Your task to perform on an android device: Open the phone app and click the voicemail tab. Image 0: 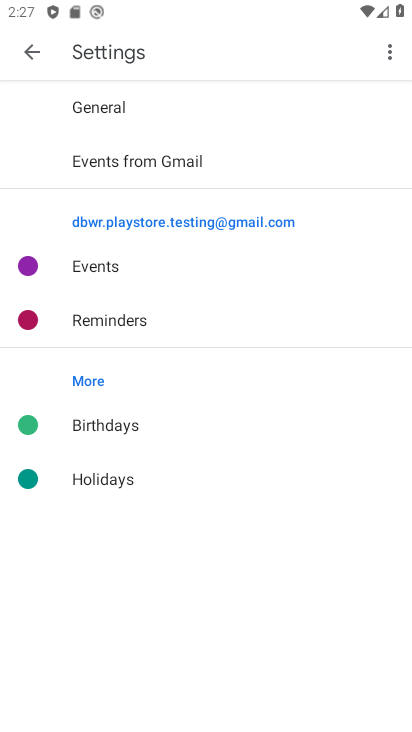
Step 0: press home button
Your task to perform on an android device: Open the phone app and click the voicemail tab. Image 1: 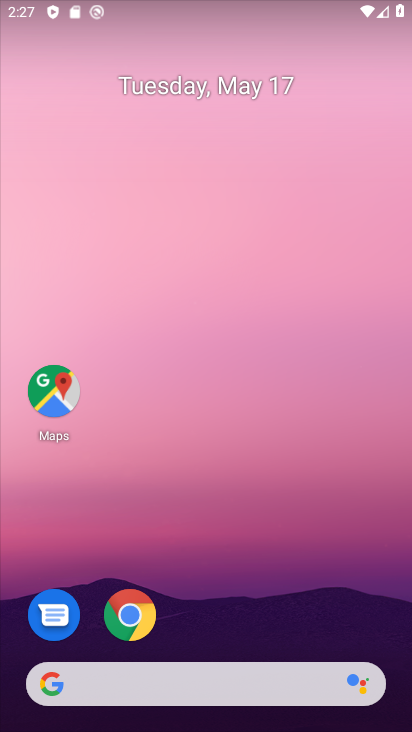
Step 1: drag from (194, 729) to (224, 231)
Your task to perform on an android device: Open the phone app and click the voicemail tab. Image 2: 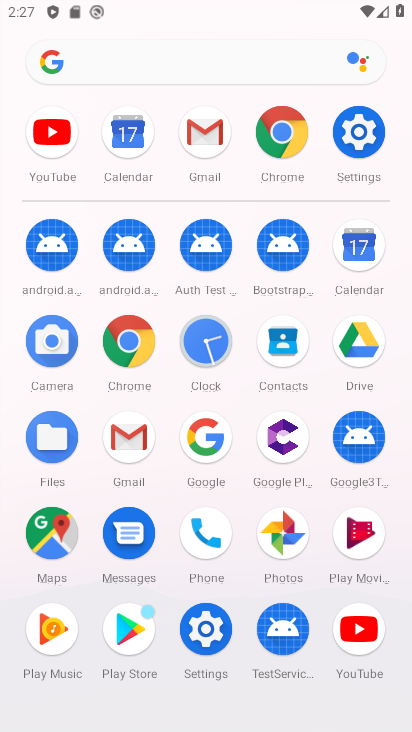
Step 2: click (203, 533)
Your task to perform on an android device: Open the phone app and click the voicemail tab. Image 3: 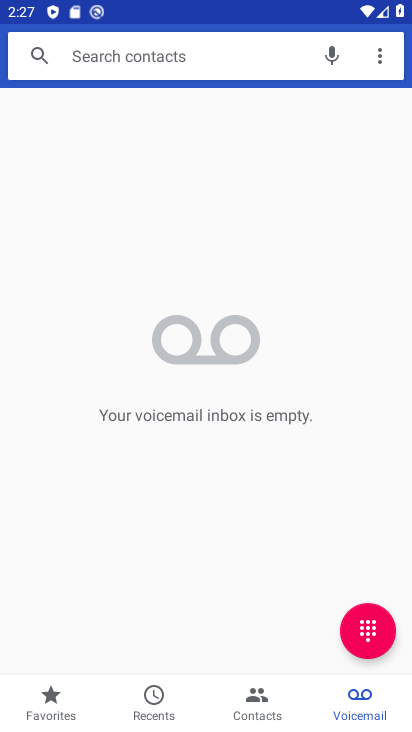
Step 3: task complete